Your task to perform on an android device: turn on notifications settings in the gmail app Image 0: 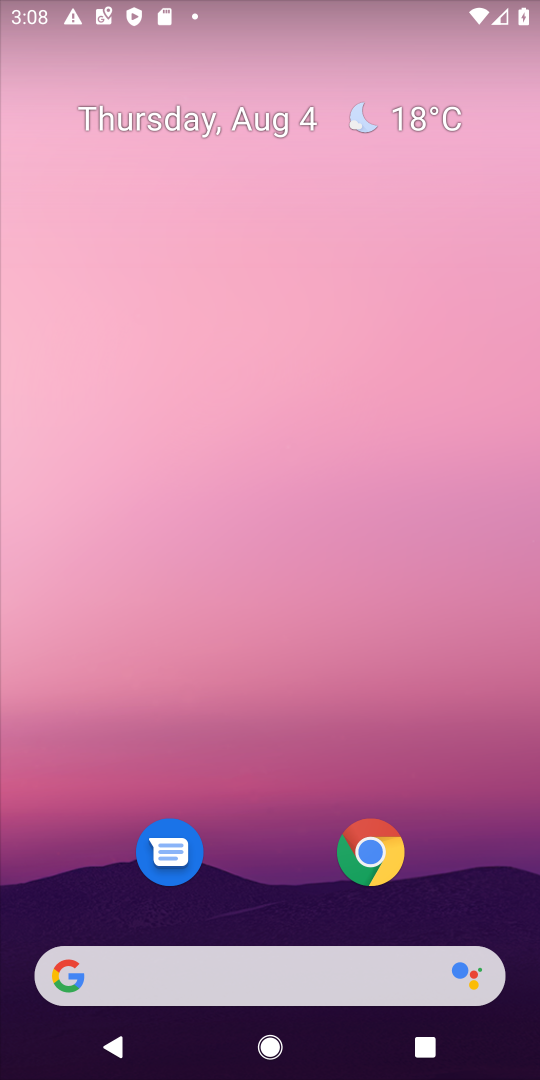
Step 0: drag from (185, 912) to (266, 215)
Your task to perform on an android device: turn on notifications settings in the gmail app Image 1: 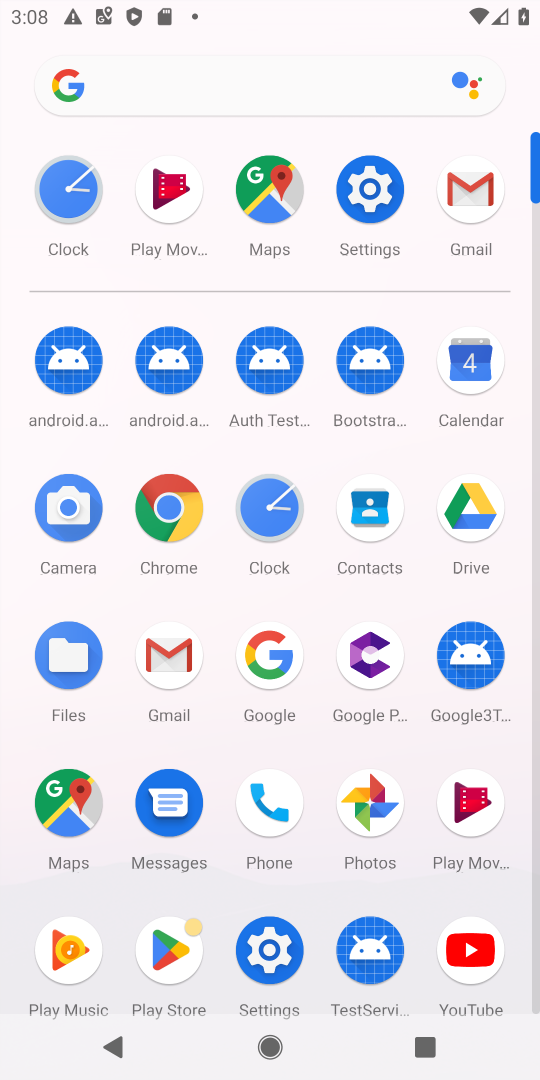
Step 1: click (464, 190)
Your task to perform on an android device: turn on notifications settings in the gmail app Image 2: 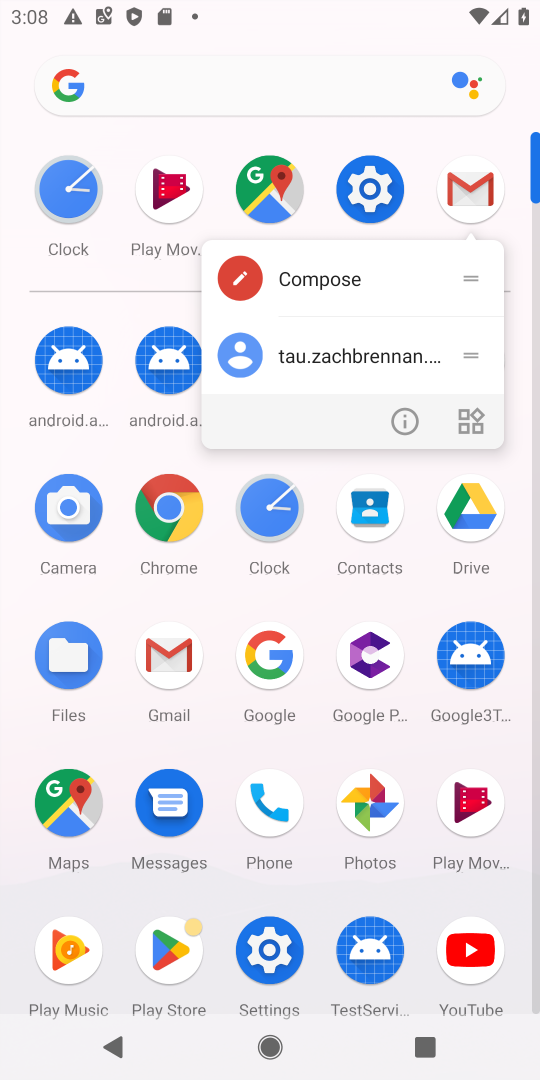
Step 2: click (406, 419)
Your task to perform on an android device: turn on notifications settings in the gmail app Image 3: 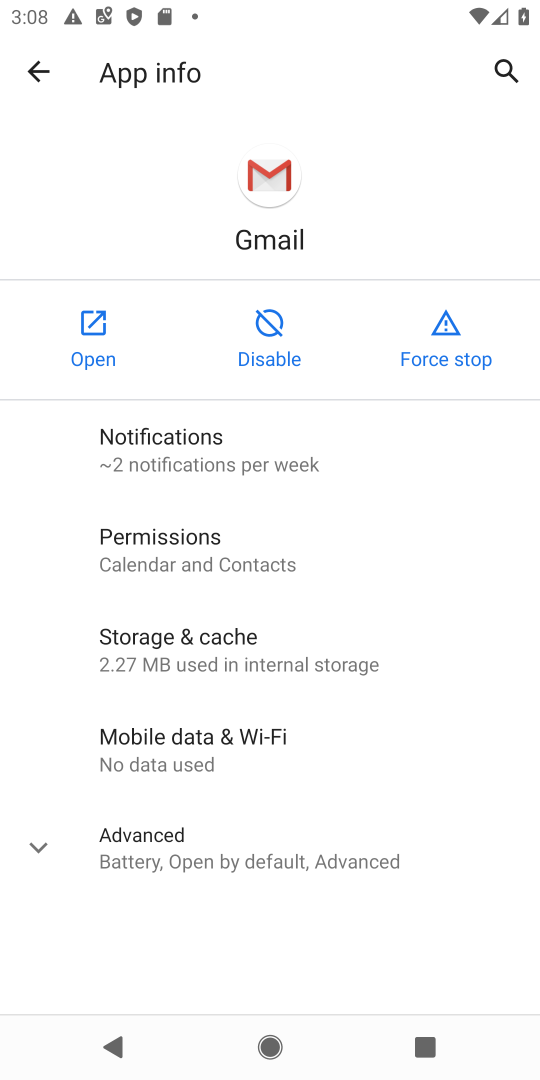
Step 3: click (234, 459)
Your task to perform on an android device: turn on notifications settings in the gmail app Image 4: 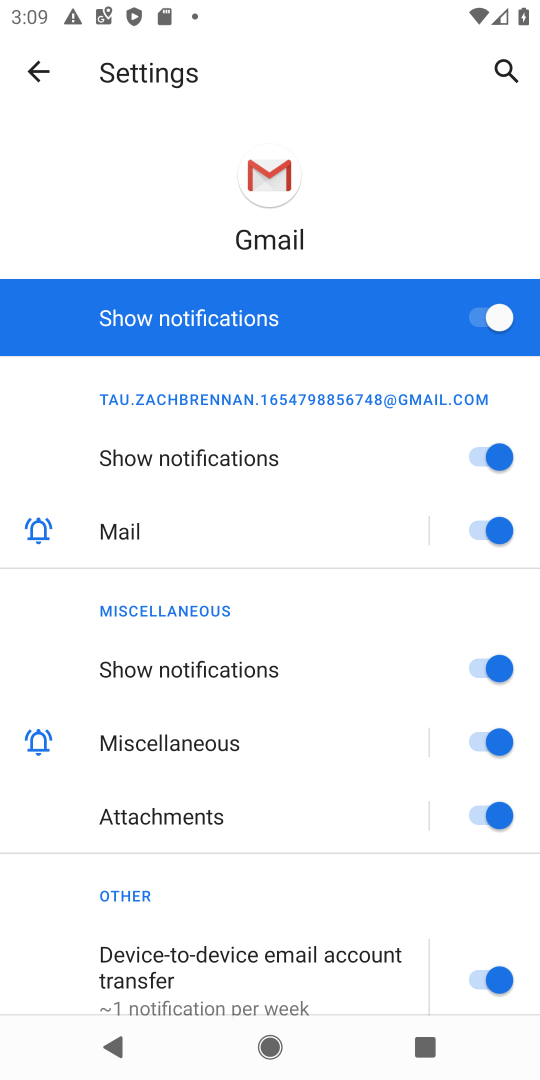
Step 4: task complete